Your task to perform on an android device: check storage Image 0: 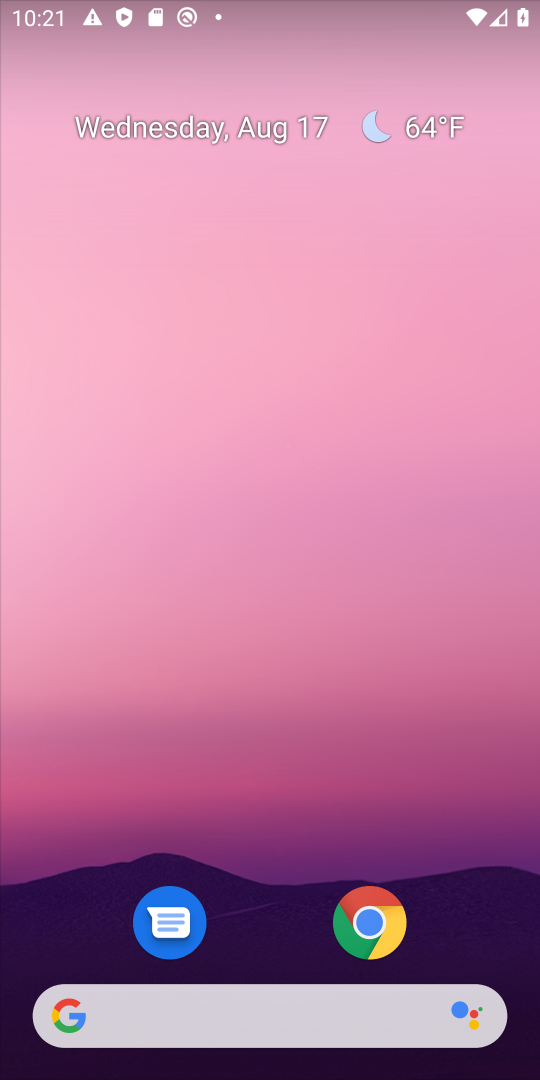
Step 0: drag from (260, 911) to (328, 240)
Your task to perform on an android device: check storage Image 1: 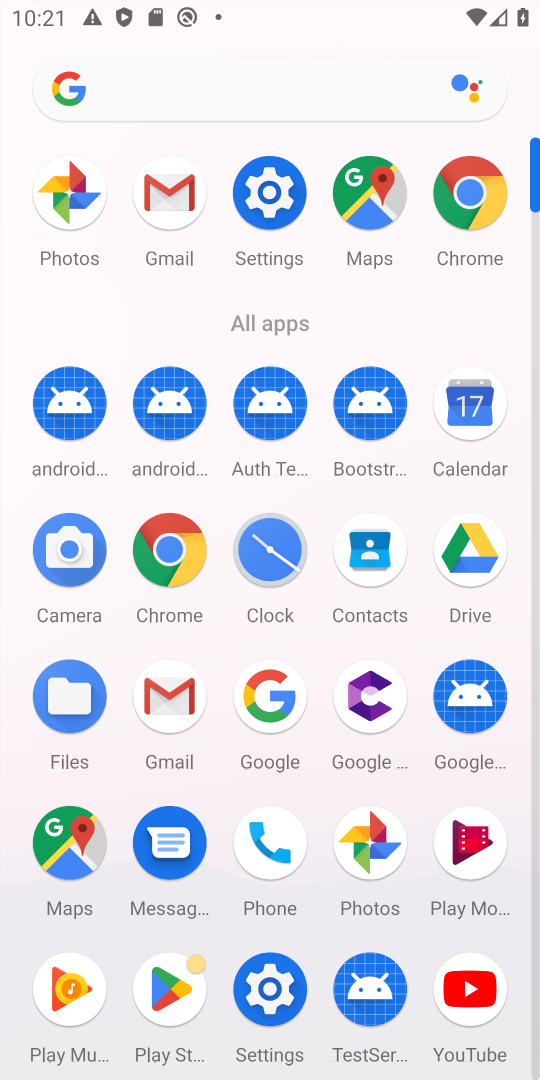
Step 1: click (280, 957)
Your task to perform on an android device: check storage Image 2: 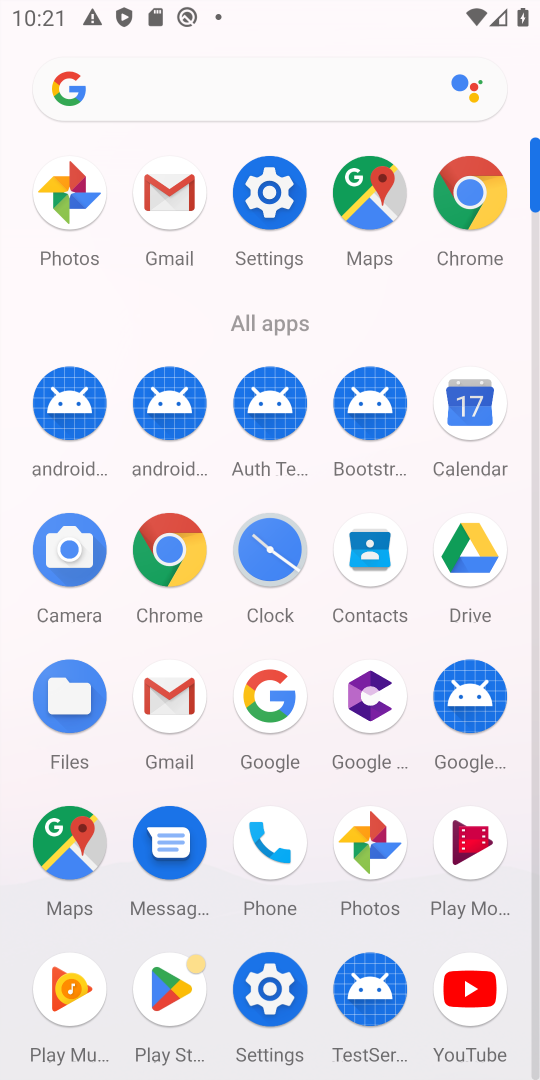
Step 2: click (273, 1009)
Your task to perform on an android device: check storage Image 3: 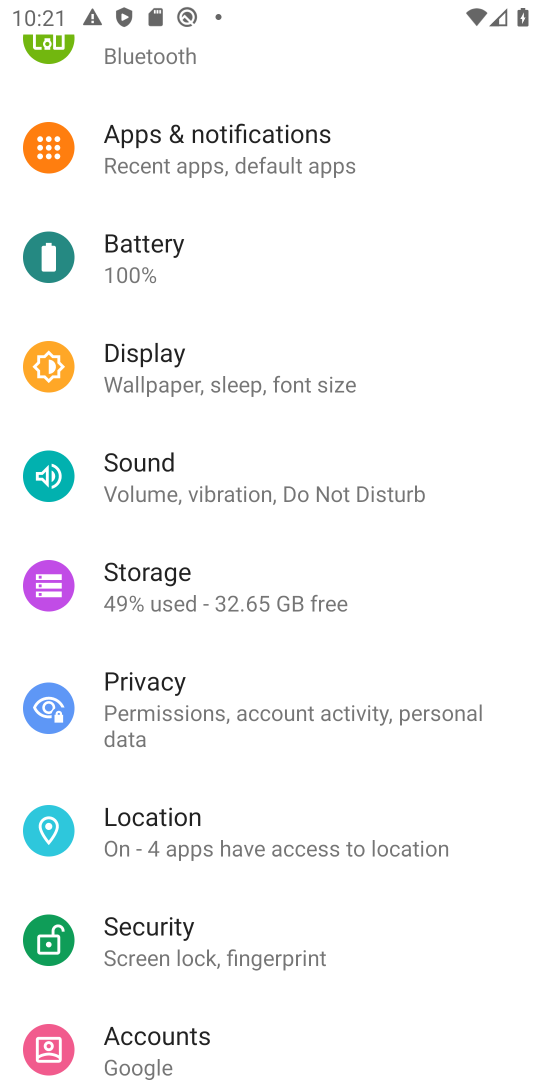
Step 3: click (151, 588)
Your task to perform on an android device: check storage Image 4: 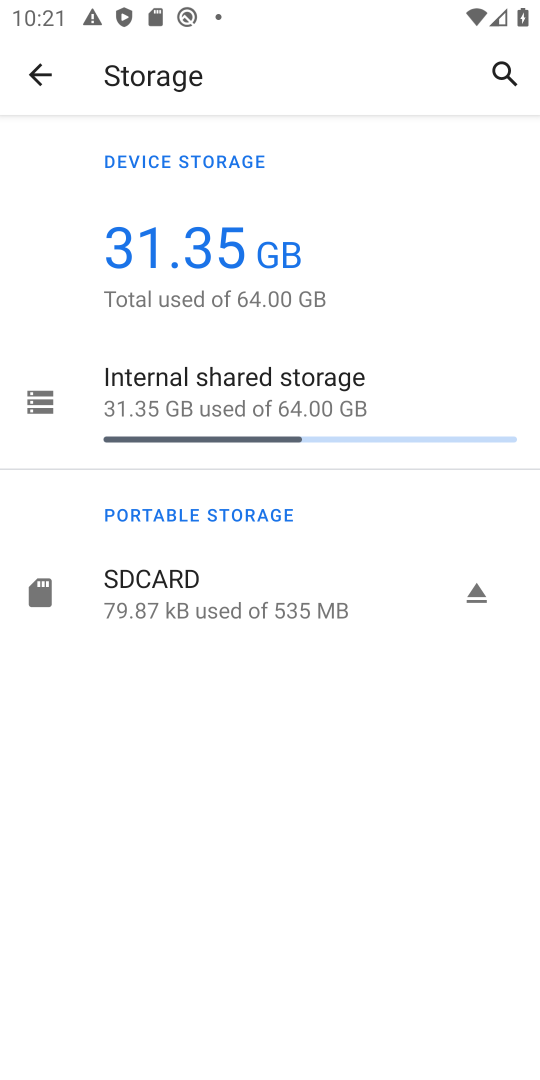
Step 4: task complete